Your task to perform on an android device: What's the weather? Image 0: 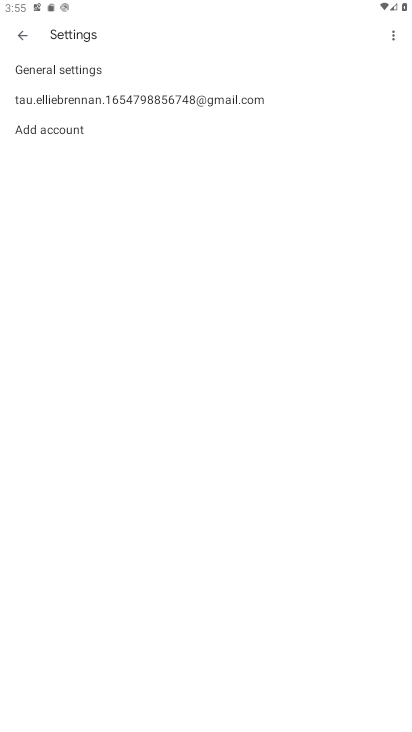
Step 0: press home button
Your task to perform on an android device: What's the weather? Image 1: 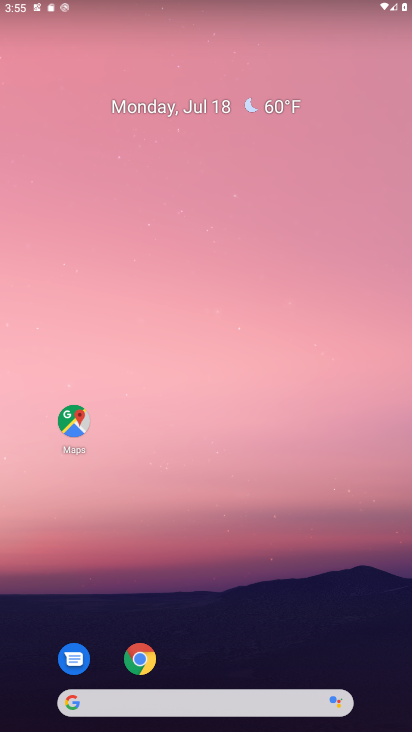
Step 1: drag from (239, 707) to (230, 77)
Your task to perform on an android device: What's the weather? Image 2: 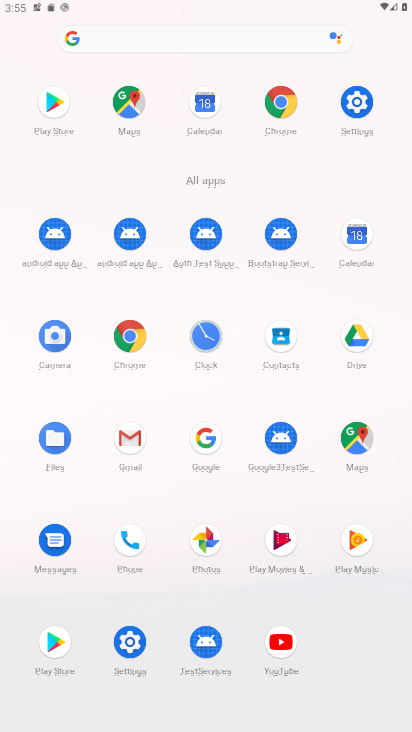
Step 2: click (113, 334)
Your task to perform on an android device: What's the weather? Image 3: 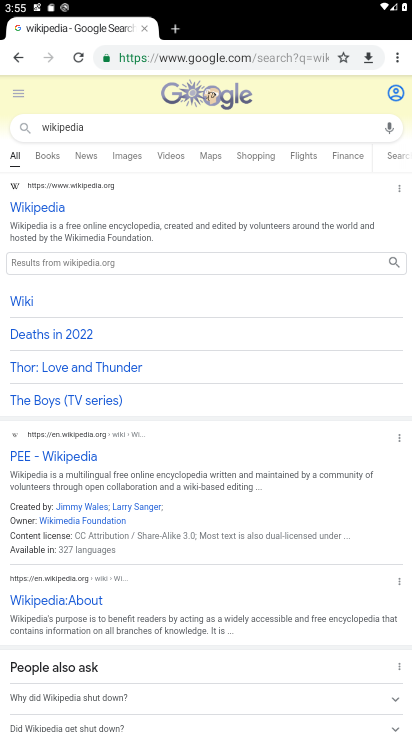
Step 3: click (214, 52)
Your task to perform on an android device: What's the weather? Image 4: 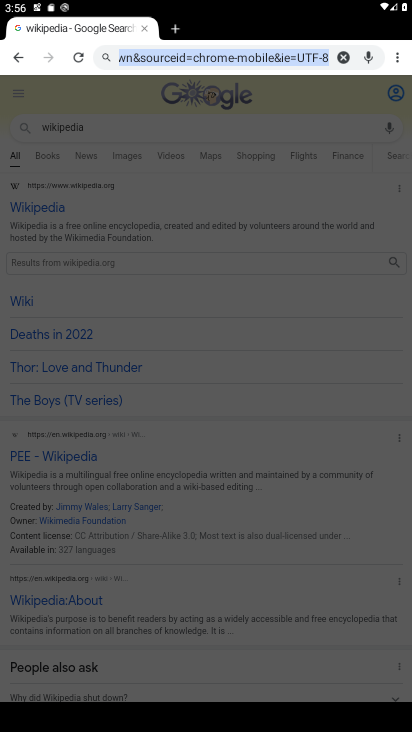
Step 4: type "whats the weather?"
Your task to perform on an android device: What's the weather? Image 5: 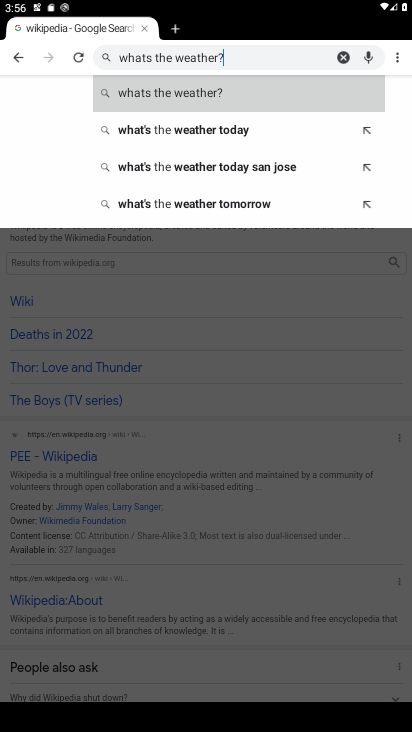
Step 5: click (292, 98)
Your task to perform on an android device: What's the weather? Image 6: 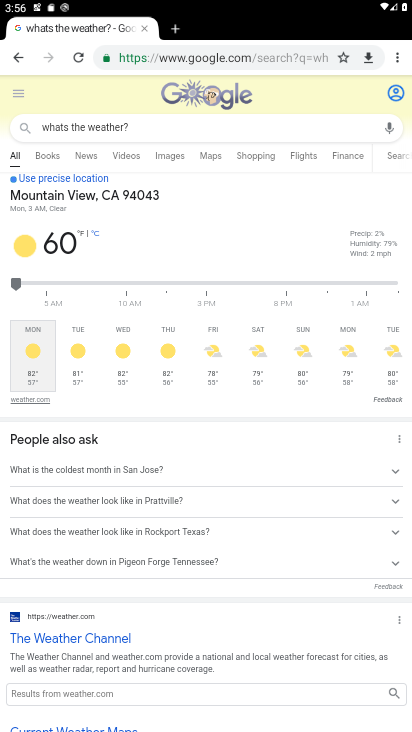
Step 6: task complete